Your task to perform on an android device: Open CNN.com Image 0: 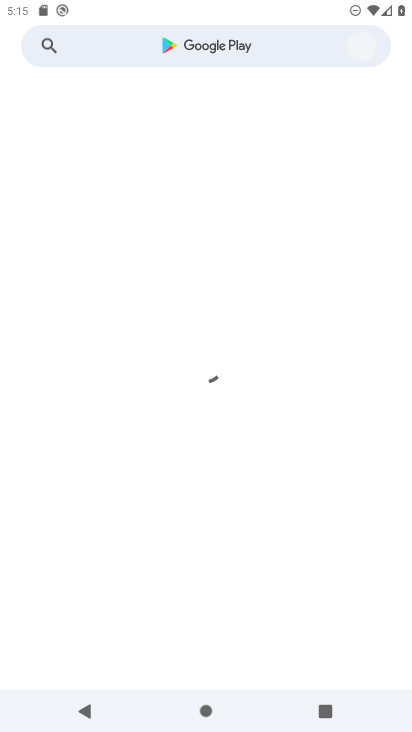
Step 0: drag from (261, 577) to (282, 547)
Your task to perform on an android device: Open CNN.com Image 1: 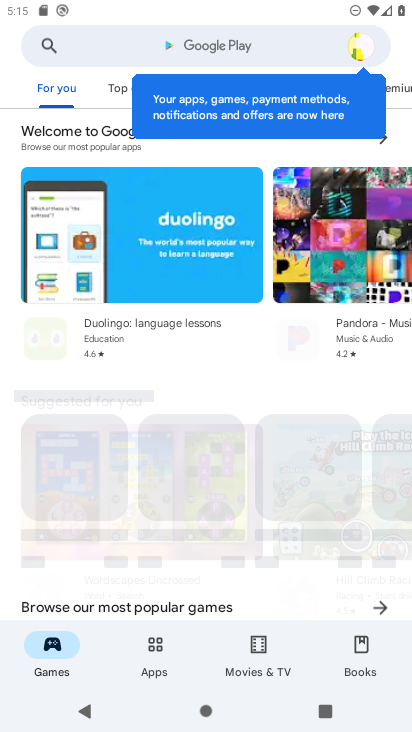
Step 1: press home button
Your task to perform on an android device: Open CNN.com Image 2: 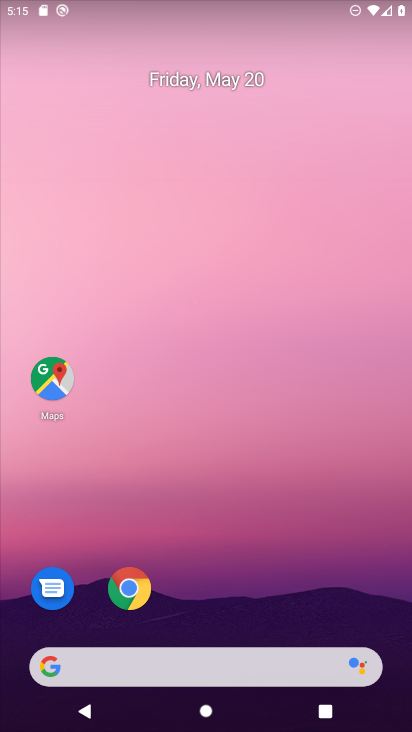
Step 2: drag from (197, 614) to (135, 130)
Your task to perform on an android device: Open CNN.com Image 3: 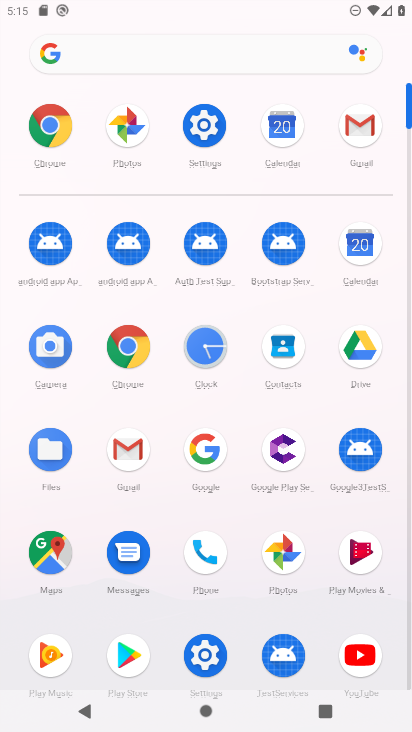
Step 3: click (56, 159)
Your task to perform on an android device: Open CNN.com Image 4: 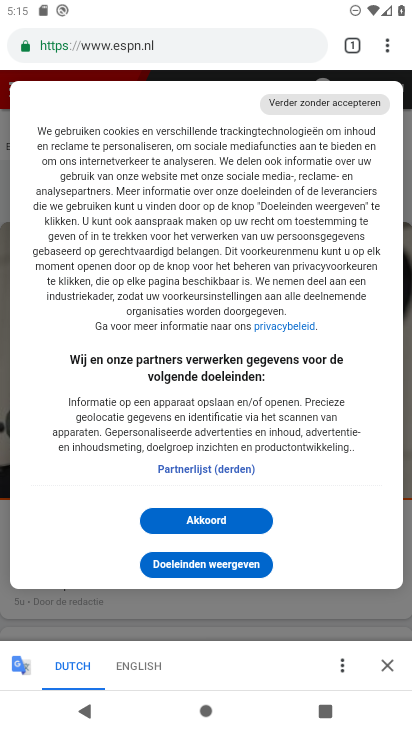
Step 4: click (148, 54)
Your task to perform on an android device: Open CNN.com Image 5: 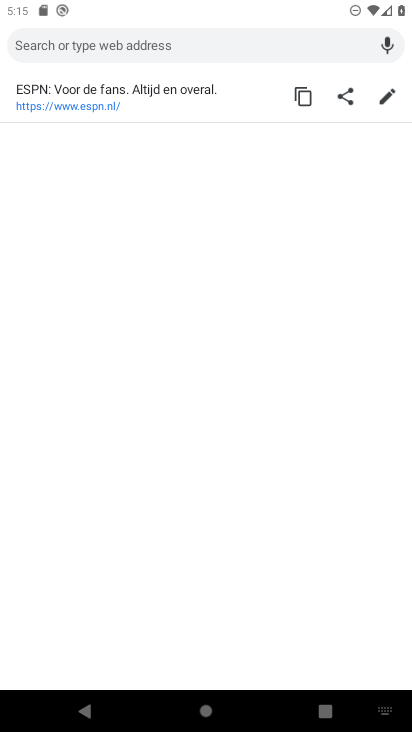
Step 5: type "www.cnn.com"
Your task to perform on an android device: Open CNN.com Image 6: 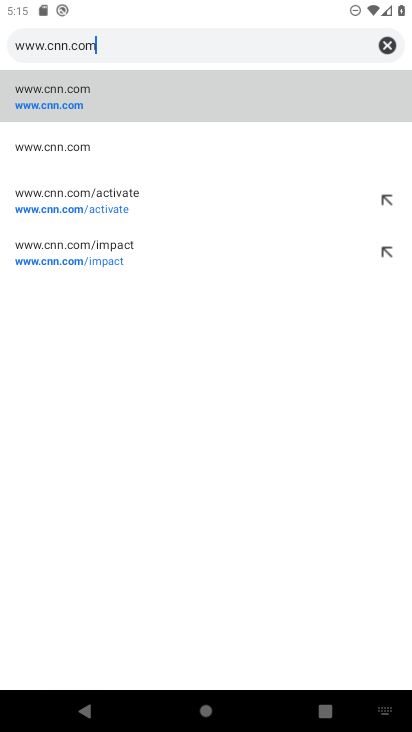
Step 6: click (43, 97)
Your task to perform on an android device: Open CNN.com Image 7: 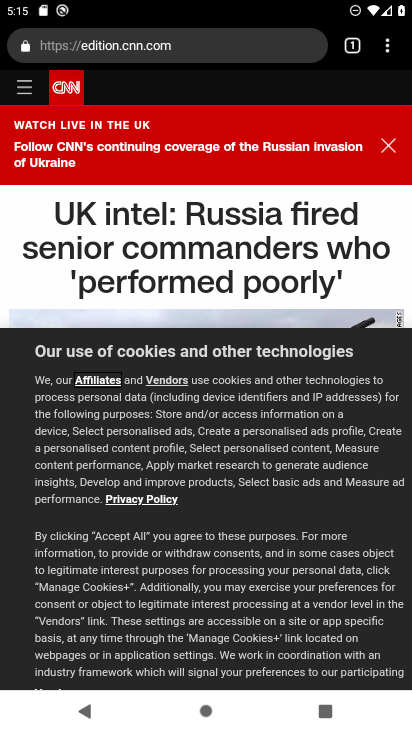
Step 7: task complete